Your task to perform on an android device: Go to accessibility settings Image 0: 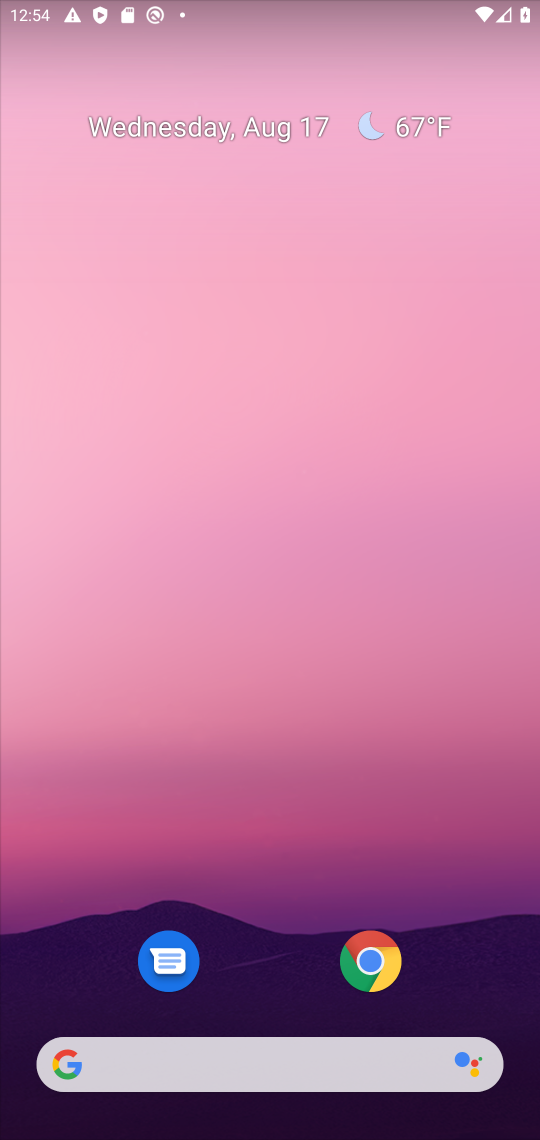
Step 0: click (449, 835)
Your task to perform on an android device: Go to accessibility settings Image 1: 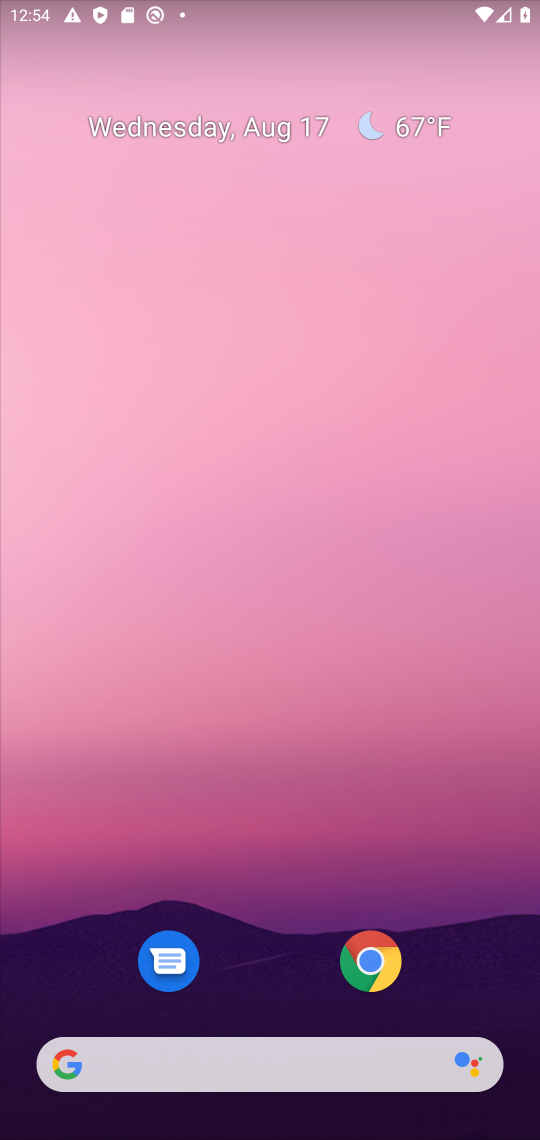
Step 1: drag from (315, 642) to (331, 21)
Your task to perform on an android device: Go to accessibility settings Image 2: 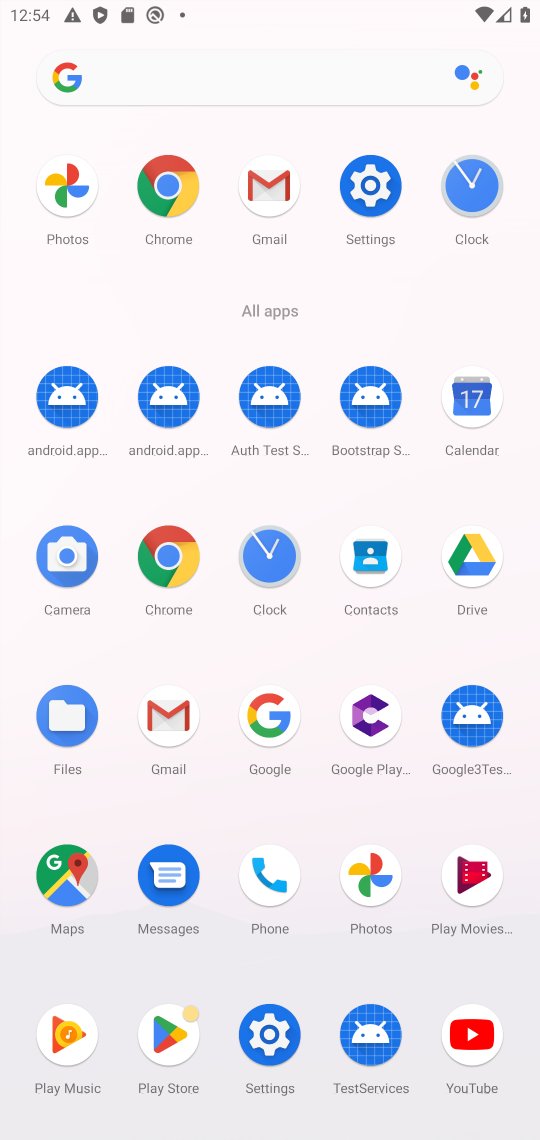
Step 2: click (374, 194)
Your task to perform on an android device: Go to accessibility settings Image 3: 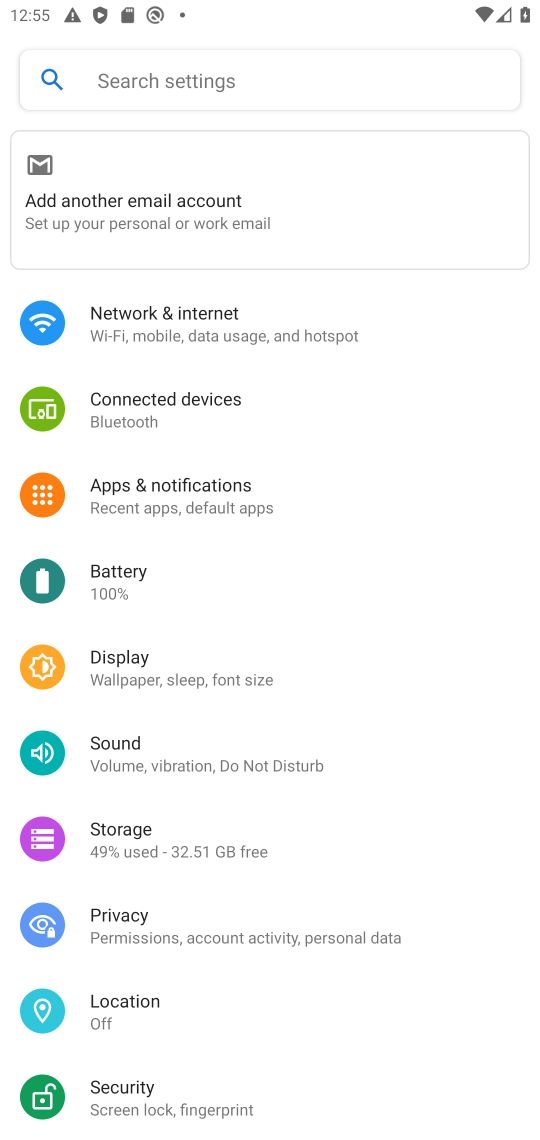
Step 3: drag from (311, 874) to (323, 391)
Your task to perform on an android device: Go to accessibility settings Image 4: 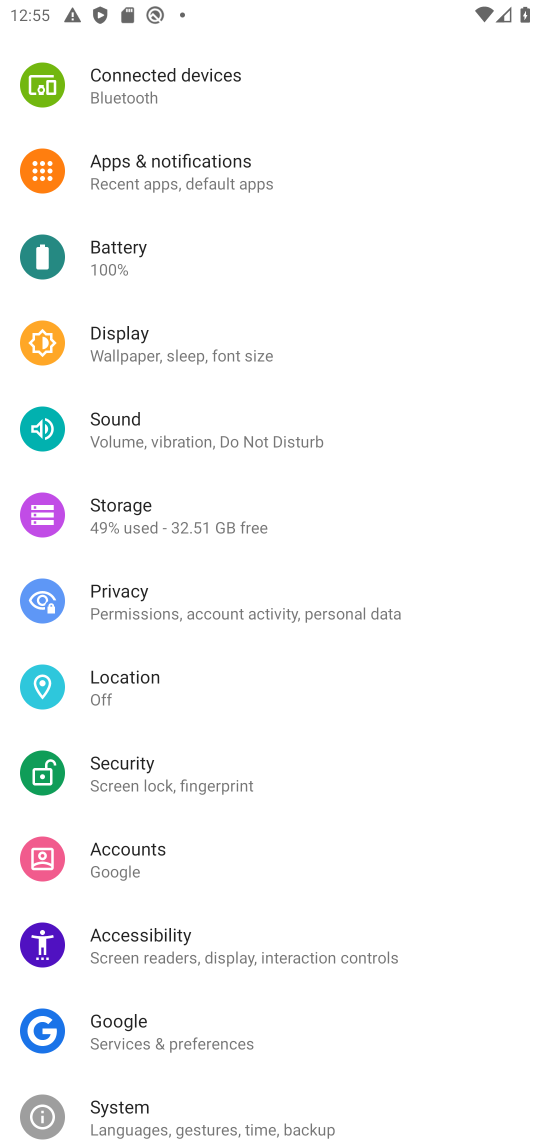
Step 4: click (195, 944)
Your task to perform on an android device: Go to accessibility settings Image 5: 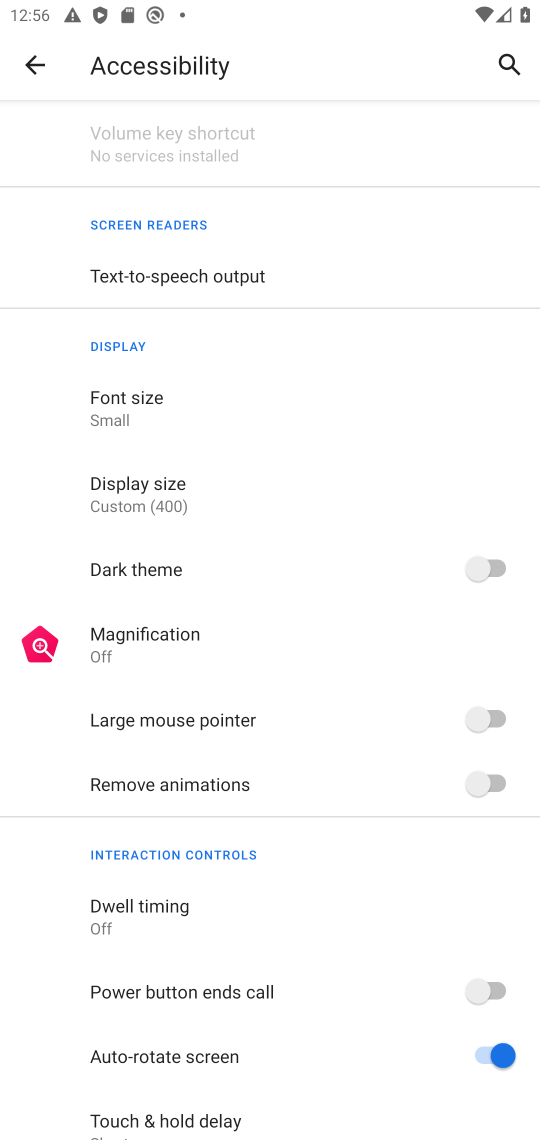
Step 5: task complete